Your task to perform on an android device: Set the phone to "Do not disturb". Image 0: 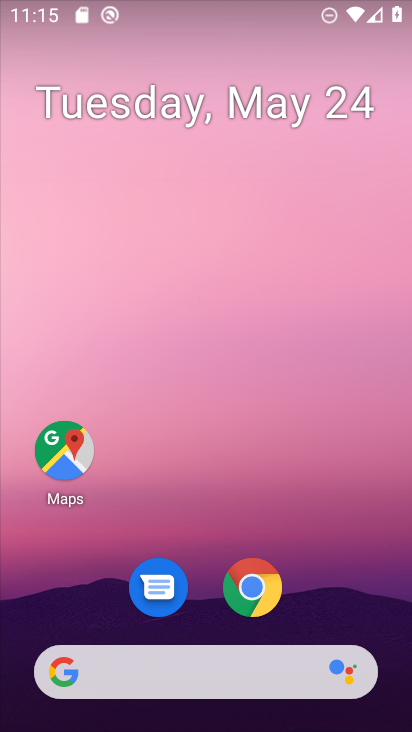
Step 0: drag from (229, 5) to (188, 731)
Your task to perform on an android device: Set the phone to "Do not disturb". Image 1: 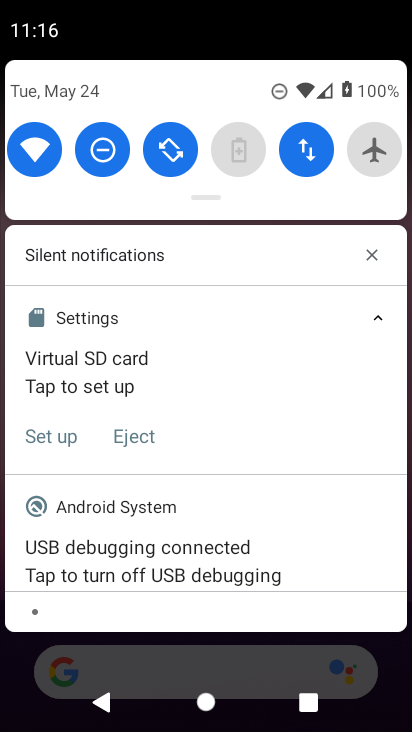
Step 1: task complete